Your task to perform on an android device: turn pop-ups off in chrome Image 0: 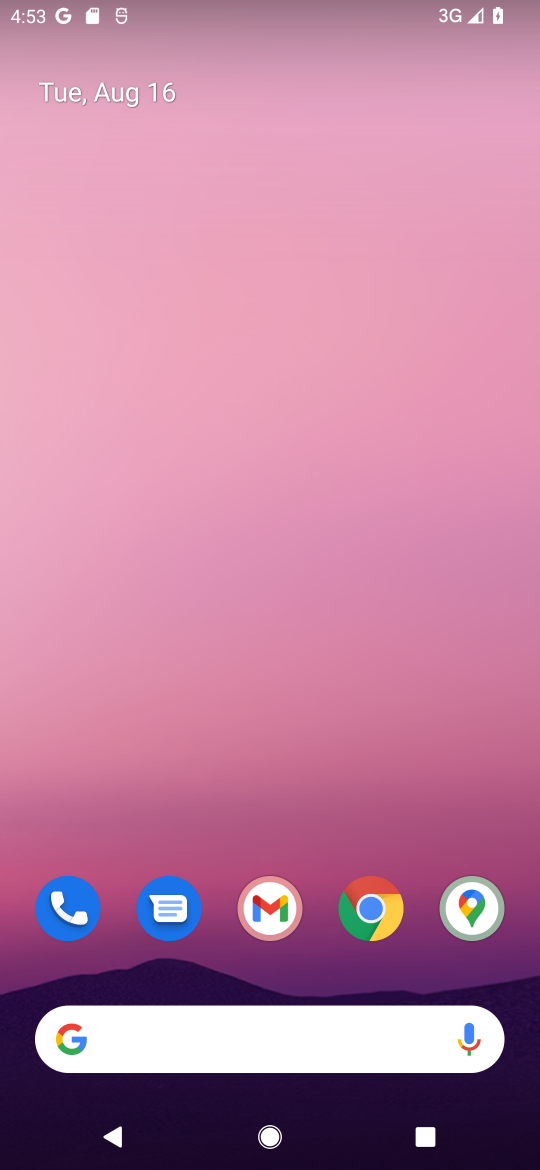
Step 0: click (350, 909)
Your task to perform on an android device: turn pop-ups off in chrome Image 1: 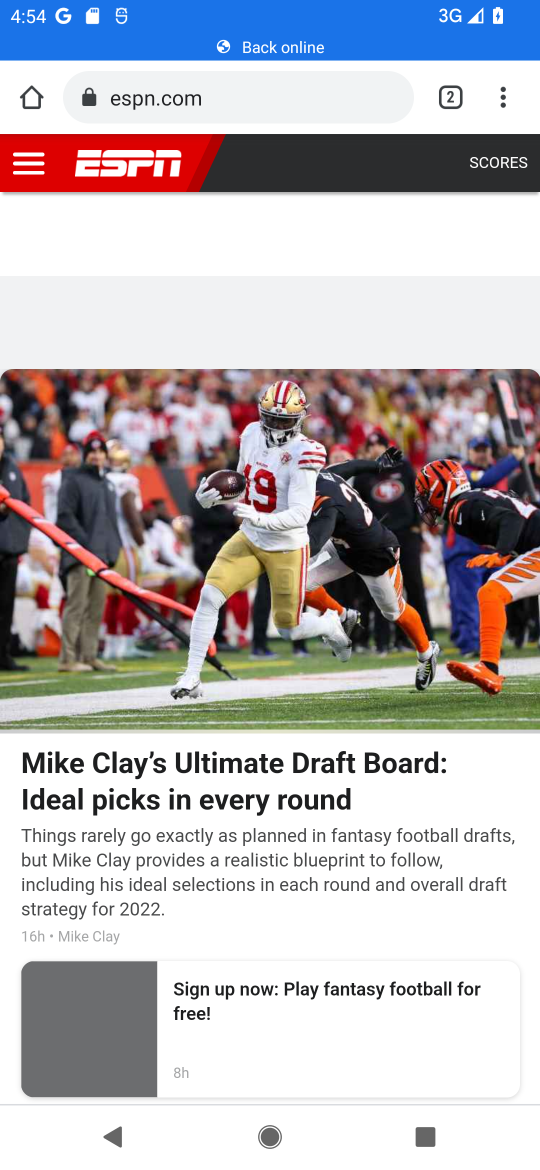
Step 1: drag from (497, 86) to (257, 988)
Your task to perform on an android device: turn pop-ups off in chrome Image 2: 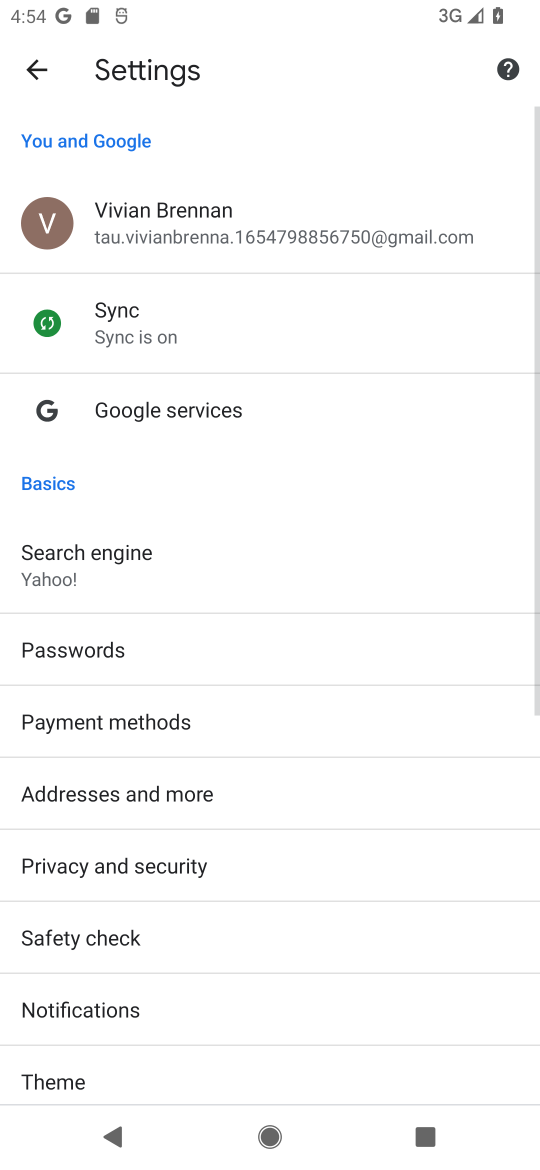
Step 2: drag from (131, 992) to (365, 117)
Your task to perform on an android device: turn pop-ups off in chrome Image 3: 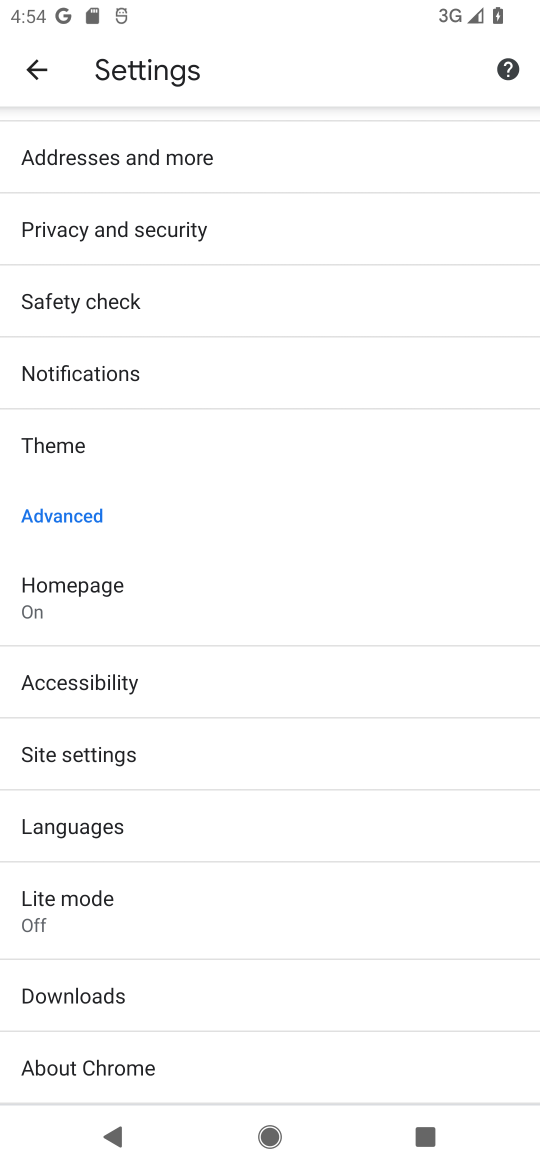
Step 3: click (130, 762)
Your task to perform on an android device: turn pop-ups off in chrome Image 4: 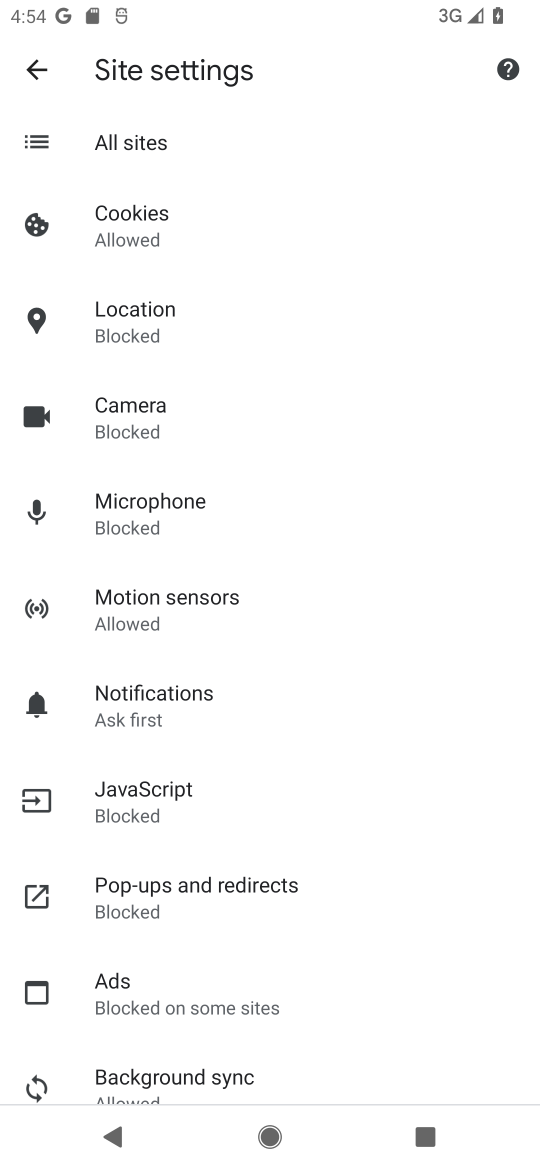
Step 4: click (162, 896)
Your task to perform on an android device: turn pop-ups off in chrome Image 5: 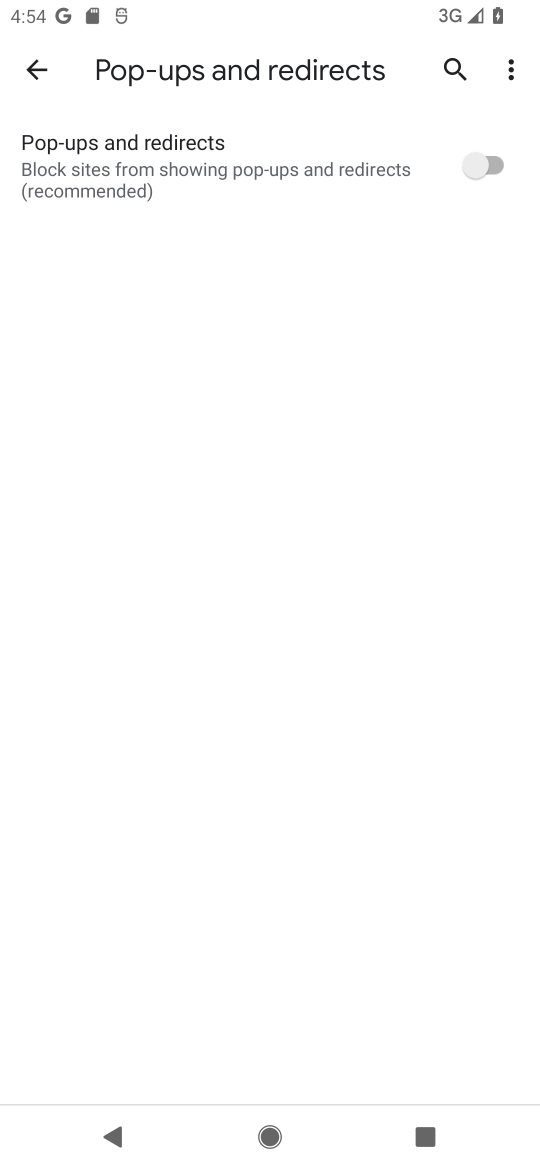
Step 5: click (498, 161)
Your task to perform on an android device: turn pop-ups off in chrome Image 6: 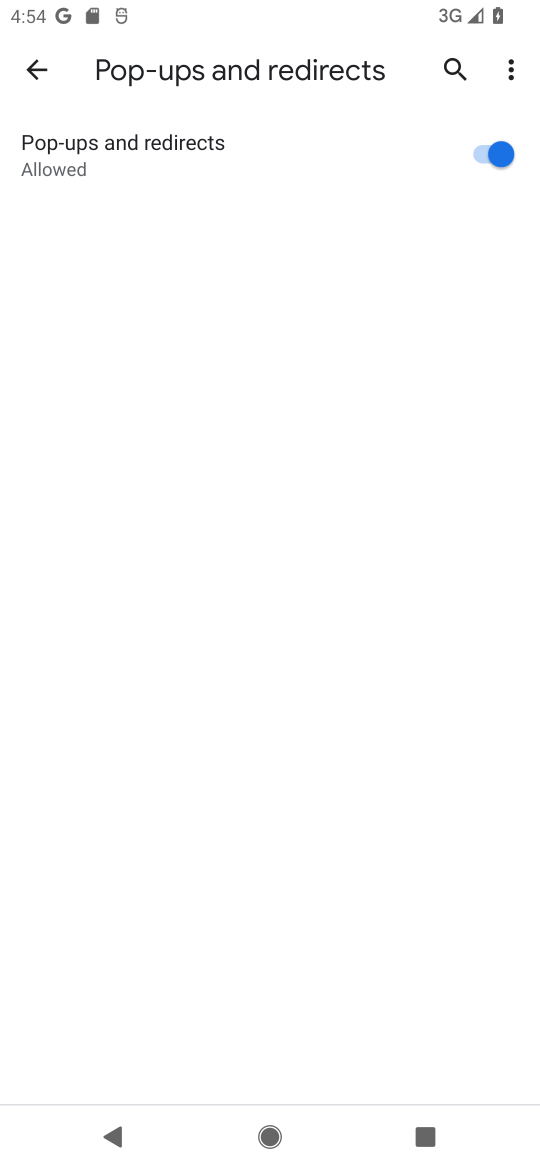
Step 6: click (489, 158)
Your task to perform on an android device: turn pop-ups off in chrome Image 7: 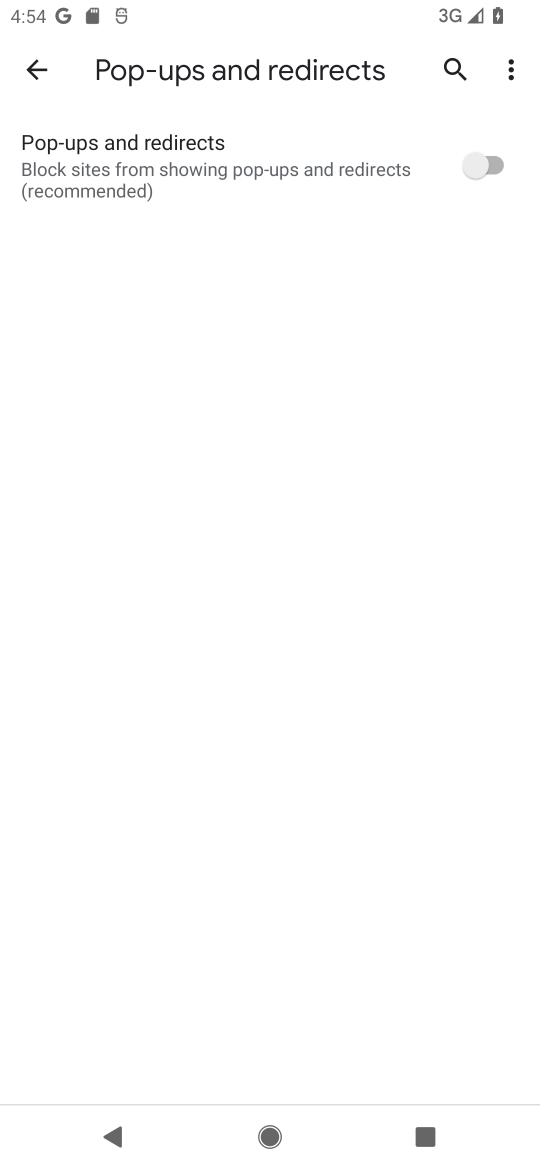
Step 7: task complete